Your task to perform on an android device: install app "Adobe Acrobat Reader: Edit PDF" Image 0: 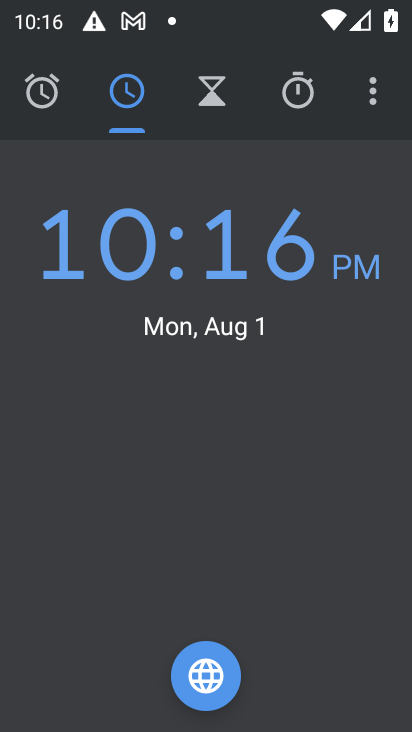
Step 0: press home button
Your task to perform on an android device: install app "Adobe Acrobat Reader: Edit PDF" Image 1: 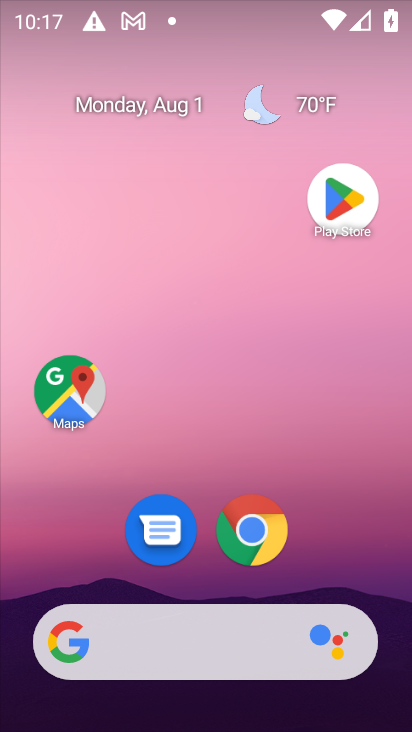
Step 1: click (316, 199)
Your task to perform on an android device: install app "Adobe Acrobat Reader: Edit PDF" Image 2: 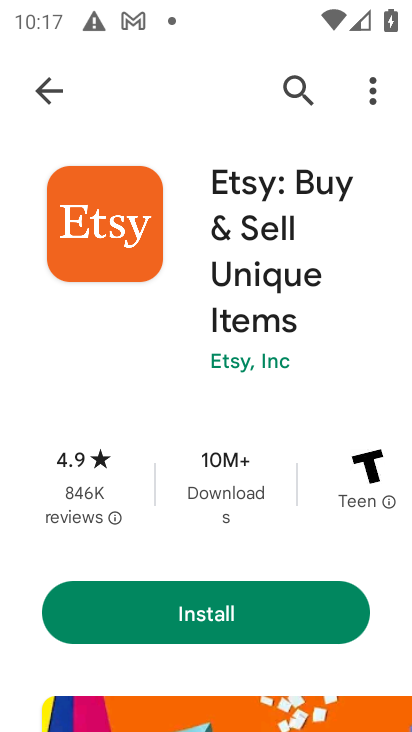
Step 2: click (283, 94)
Your task to perform on an android device: install app "Adobe Acrobat Reader: Edit PDF" Image 3: 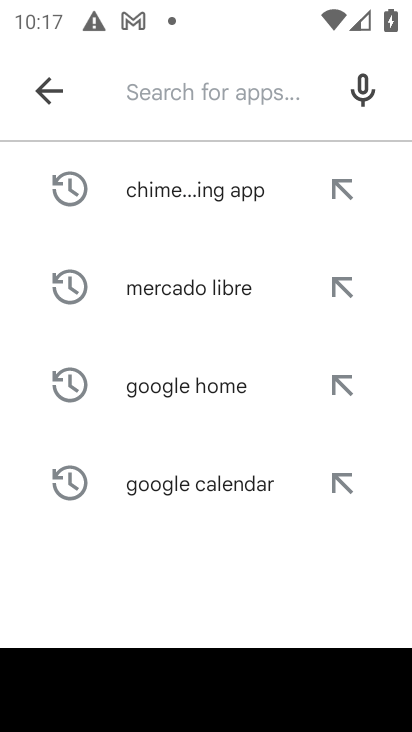
Step 3: click (154, 116)
Your task to perform on an android device: install app "Adobe Acrobat Reader: Edit PDF" Image 4: 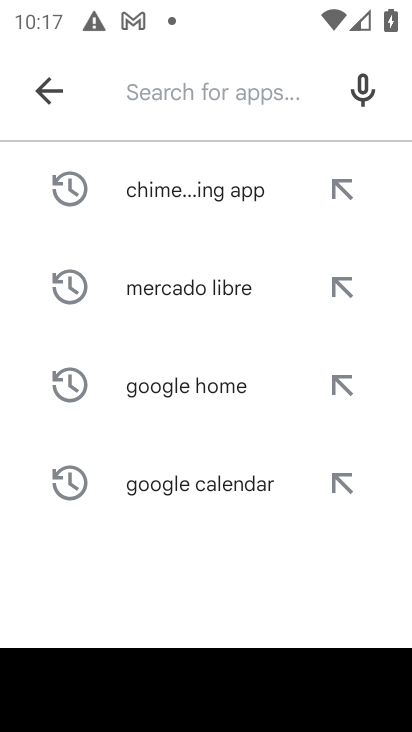
Step 4: type "Adobe Acrobat Reader: Edit PDF"
Your task to perform on an android device: install app "Adobe Acrobat Reader: Edit PDF" Image 5: 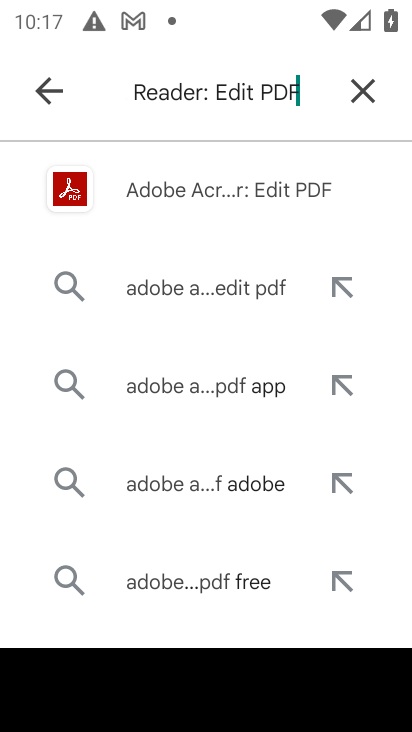
Step 5: click (312, 194)
Your task to perform on an android device: install app "Adobe Acrobat Reader: Edit PDF" Image 6: 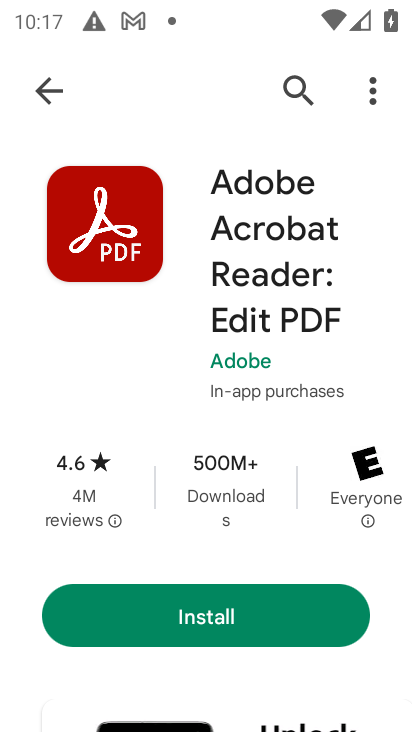
Step 6: click (244, 628)
Your task to perform on an android device: install app "Adobe Acrobat Reader: Edit PDF" Image 7: 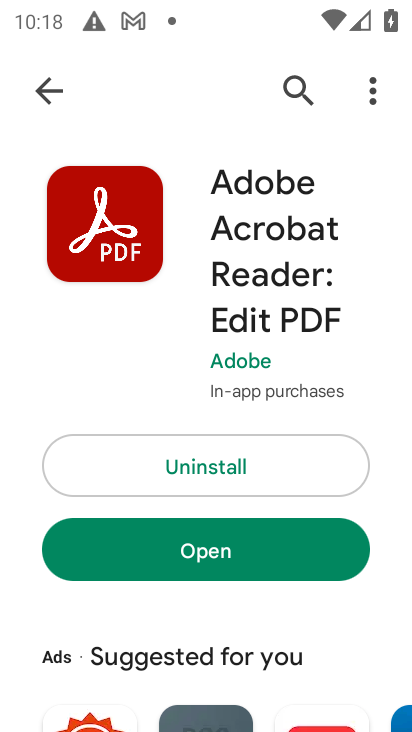
Step 7: task complete